Your task to perform on an android device: open chrome and create a bookmark for the current page Image 0: 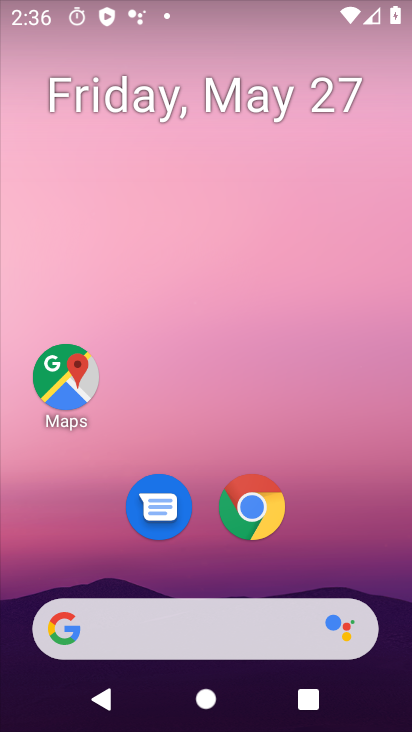
Step 0: click (239, 519)
Your task to perform on an android device: open chrome and create a bookmark for the current page Image 1: 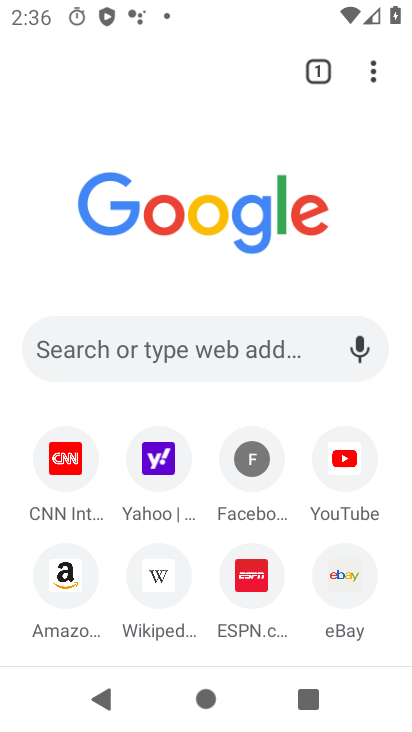
Step 1: click (371, 68)
Your task to perform on an android device: open chrome and create a bookmark for the current page Image 2: 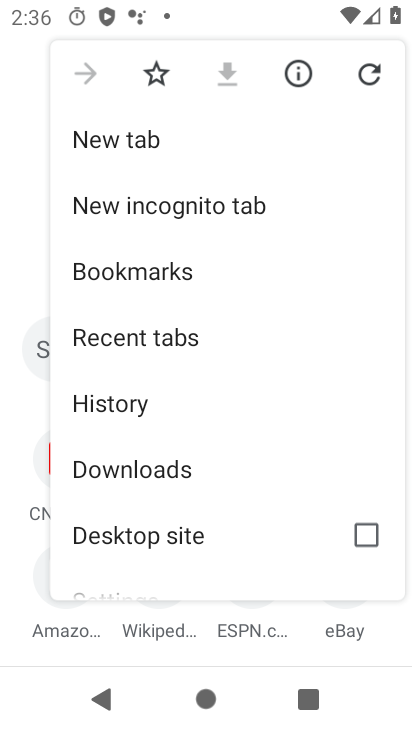
Step 2: click (149, 72)
Your task to perform on an android device: open chrome and create a bookmark for the current page Image 3: 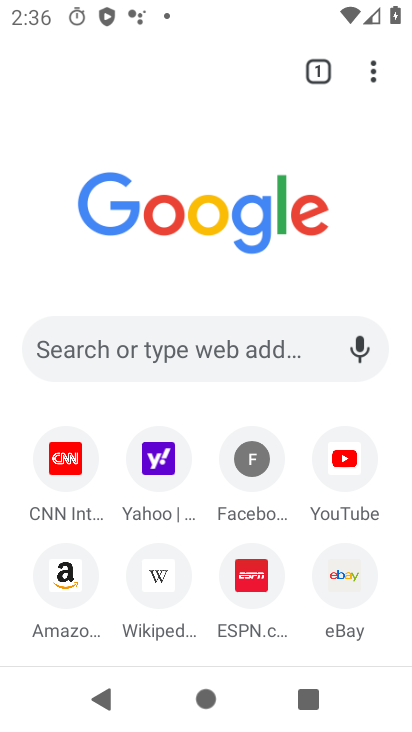
Step 3: task complete